Your task to perform on an android device: turn pop-ups off in chrome Image 0: 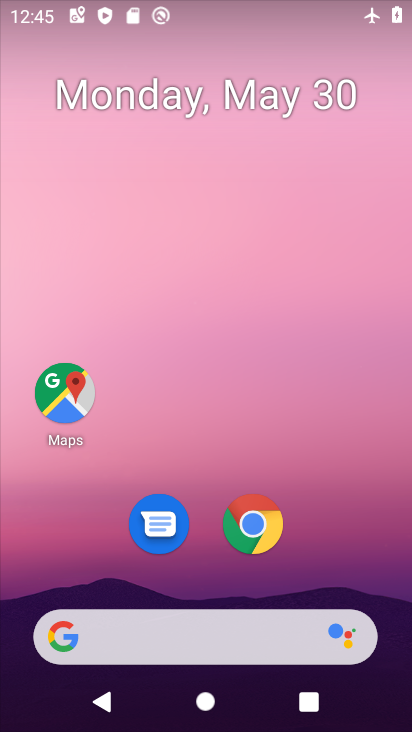
Step 0: click (248, 528)
Your task to perform on an android device: turn pop-ups off in chrome Image 1: 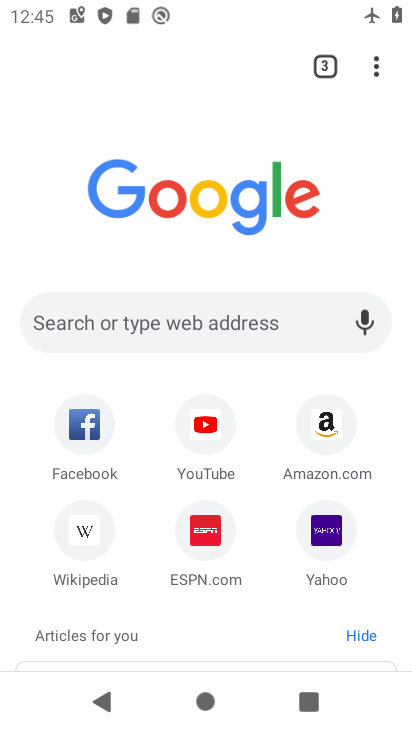
Step 1: click (374, 59)
Your task to perform on an android device: turn pop-ups off in chrome Image 2: 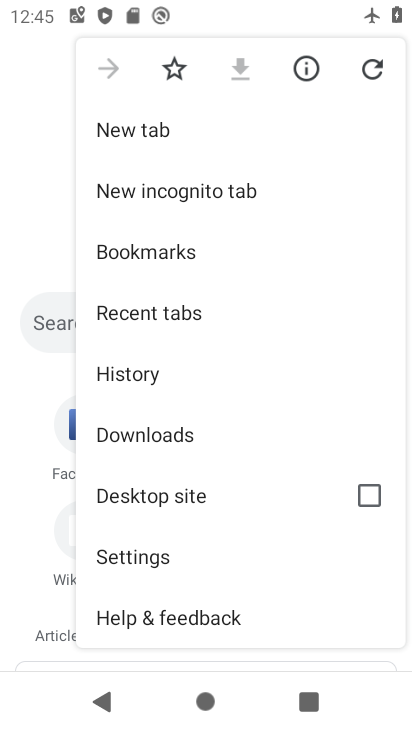
Step 2: drag from (230, 535) to (268, 326)
Your task to perform on an android device: turn pop-ups off in chrome Image 3: 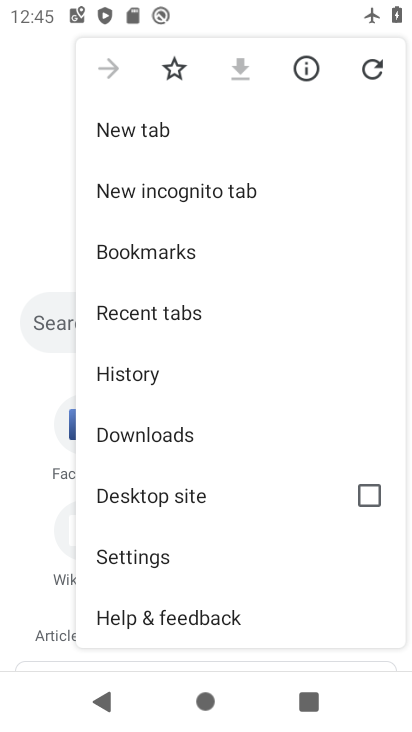
Step 3: click (181, 547)
Your task to perform on an android device: turn pop-ups off in chrome Image 4: 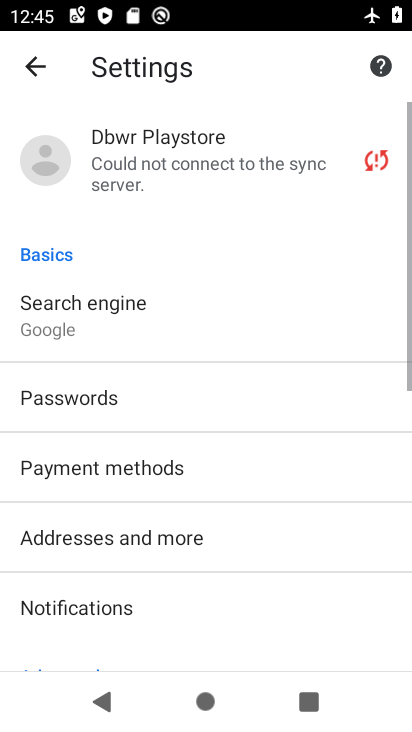
Step 4: drag from (258, 471) to (283, 47)
Your task to perform on an android device: turn pop-ups off in chrome Image 5: 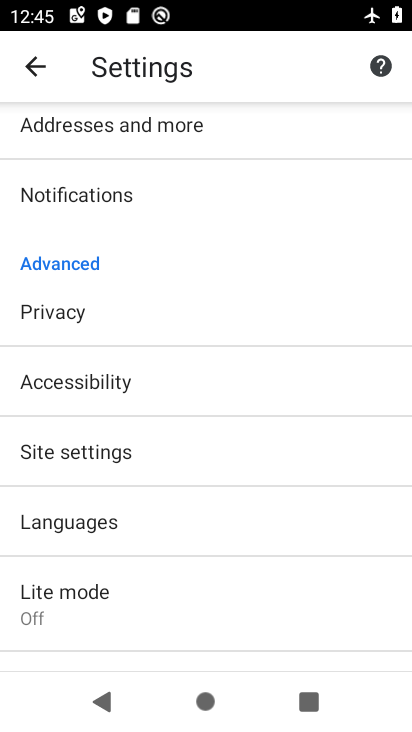
Step 5: click (159, 452)
Your task to perform on an android device: turn pop-ups off in chrome Image 6: 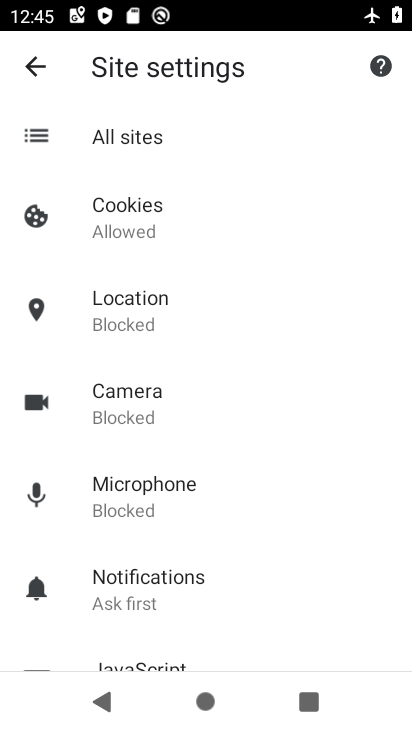
Step 6: drag from (252, 518) to (245, 282)
Your task to perform on an android device: turn pop-ups off in chrome Image 7: 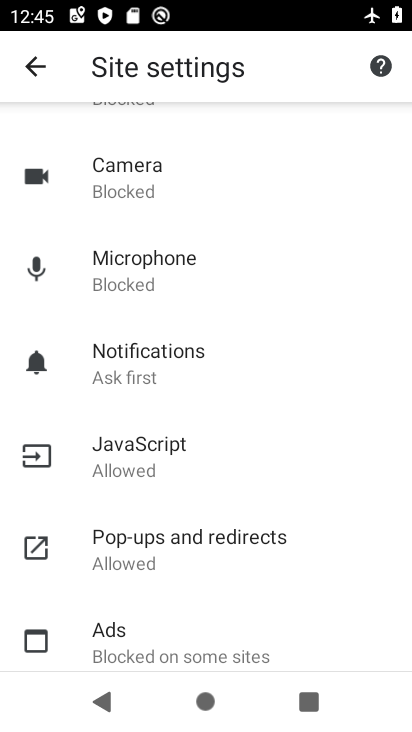
Step 7: click (227, 532)
Your task to perform on an android device: turn pop-ups off in chrome Image 8: 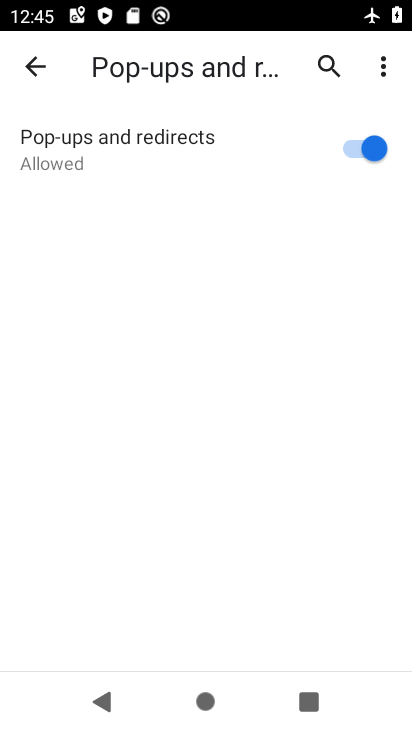
Step 8: click (363, 147)
Your task to perform on an android device: turn pop-ups off in chrome Image 9: 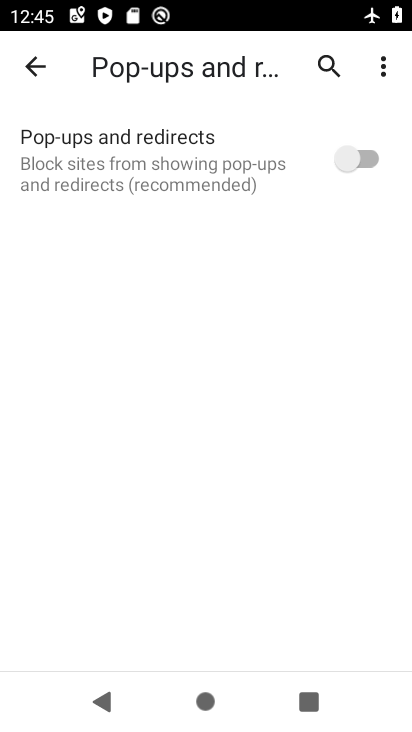
Step 9: task complete